Your task to perform on an android device: set the stopwatch Image 0: 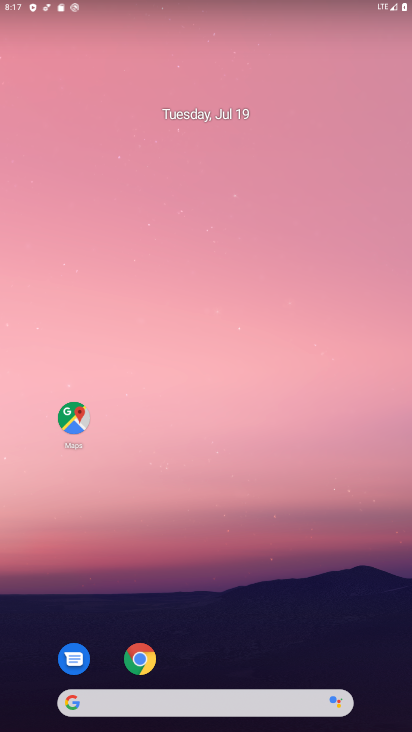
Step 0: press home button
Your task to perform on an android device: set the stopwatch Image 1: 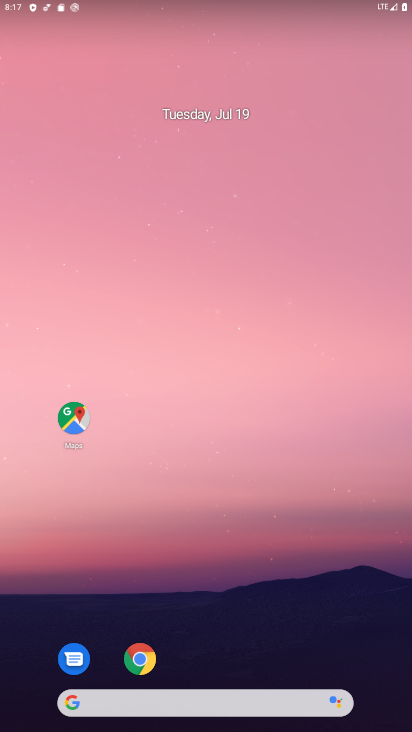
Step 1: drag from (326, 648) to (358, 28)
Your task to perform on an android device: set the stopwatch Image 2: 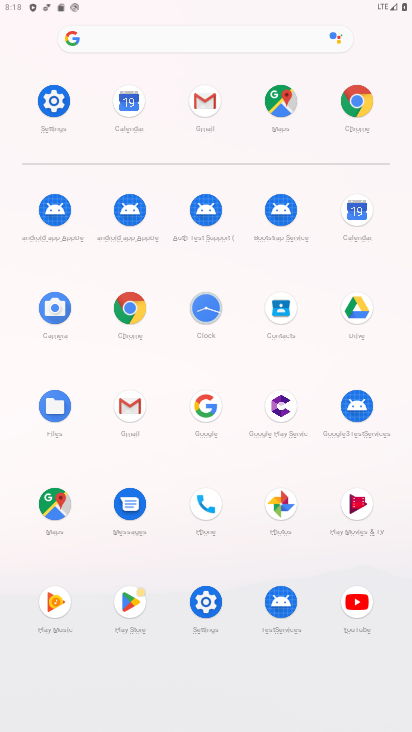
Step 2: click (211, 307)
Your task to perform on an android device: set the stopwatch Image 3: 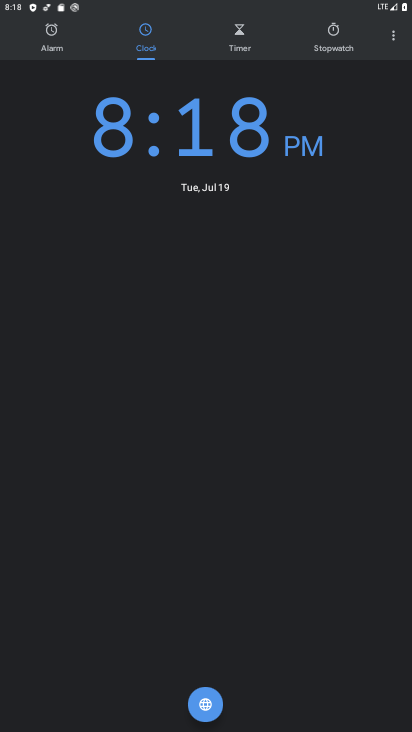
Step 3: click (314, 28)
Your task to perform on an android device: set the stopwatch Image 4: 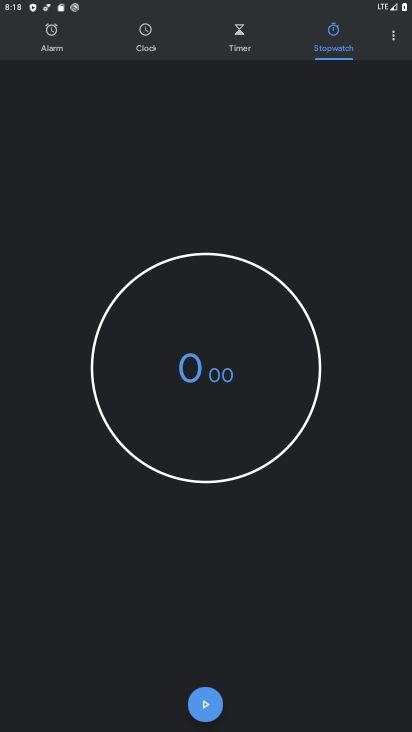
Step 4: click (192, 706)
Your task to perform on an android device: set the stopwatch Image 5: 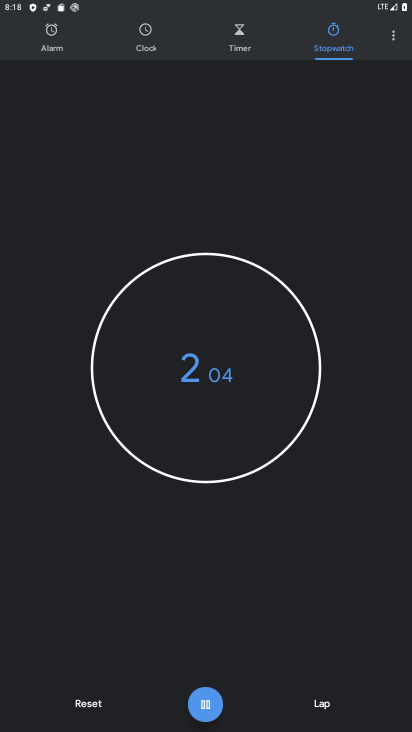
Step 5: task complete